Your task to perform on an android device: Turn on the flashlight Image 0: 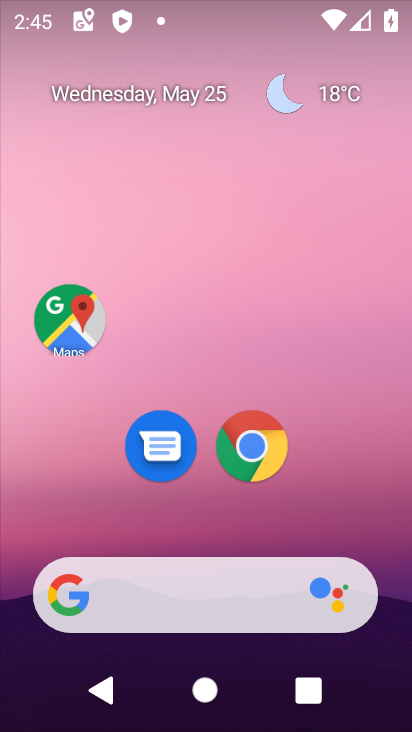
Step 0: drag from (173, 24) to (236, 508)
Your task to perform on an android device: Turn on the flashlight Image 1: 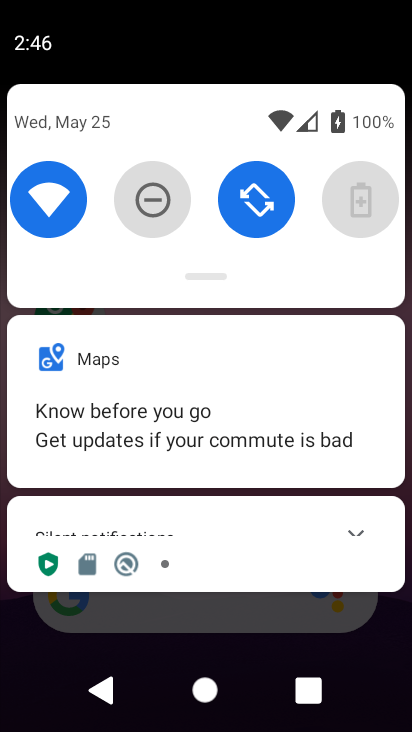
Step 1: task complete